Your task to perform on an android device: Show me recent news Image 0: 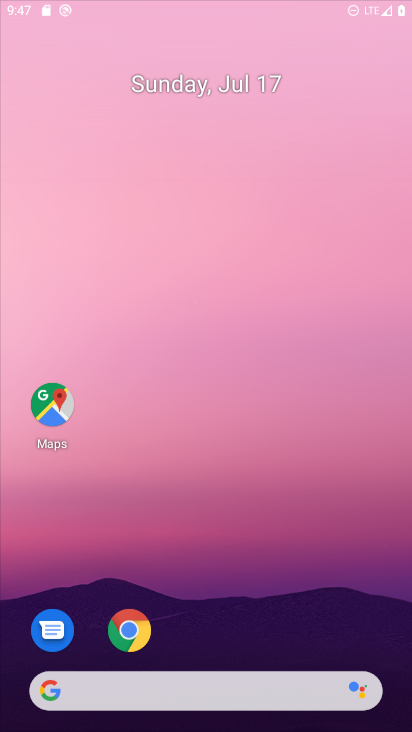
Step 0: drag from (352, 617) to (175, 34)
Your task to perform on an android device: Show me recent news Image 1: 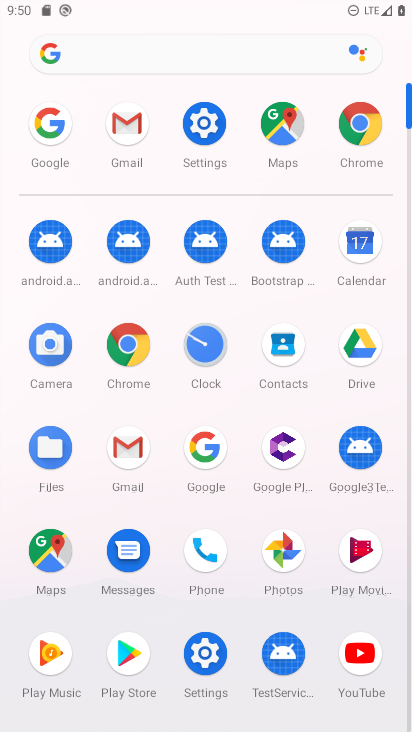
Step 1: click (211, 453)
Your task to perform on an android device: Show me recent news Image 2: 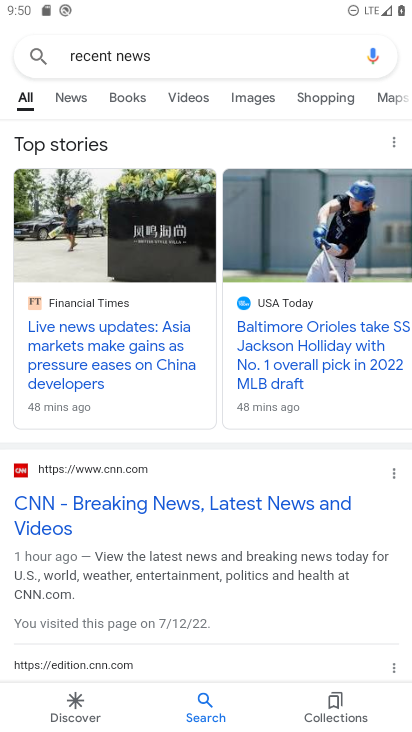
Step 2: task complete